Your task to perform on an android device: turn off notifications in google photos Image 0: 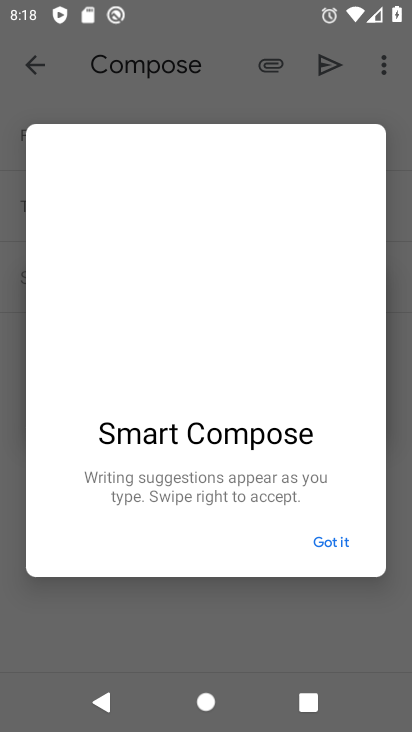
Step 0: press back button
Your task to perform on an android device: turn off notifications in google photos Image 1: 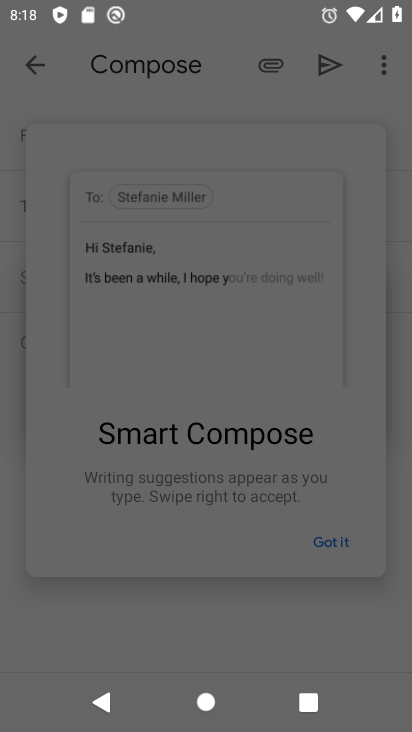
Step 1: press back button
Your task to perform on an android device: turn off notifications in google photos Image 2: 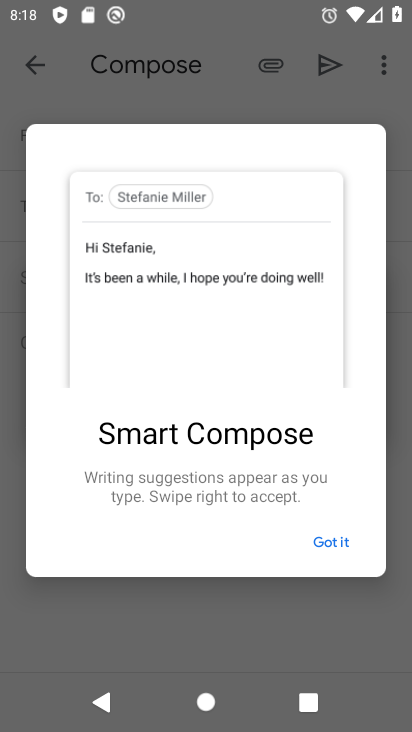
Step 2: press back button
Your task to perform on an android device: turn off notifications in google photos Image 3: 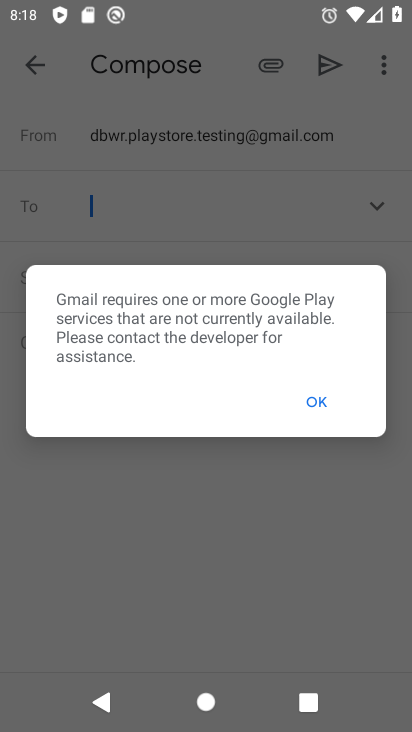
Step 3: press back button
Your task to perform on an android device: turn off notifications in google photos Image 4: 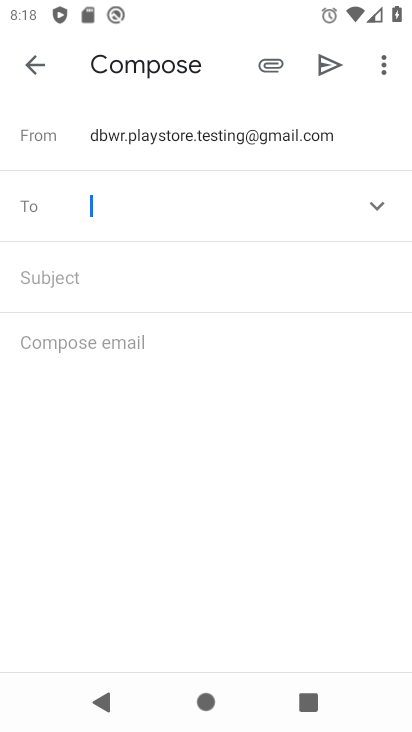
Step 4: press back button
Your task to perform on an android device: turn off notifications in google photos Image 5: 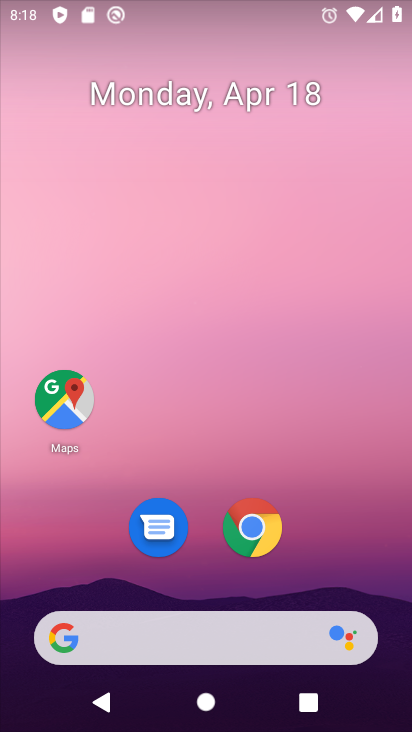
Step 5: drag from (155, 596) to (257, 145)
Your task to perform on an android device: turn off notifications in google photos Image 6: 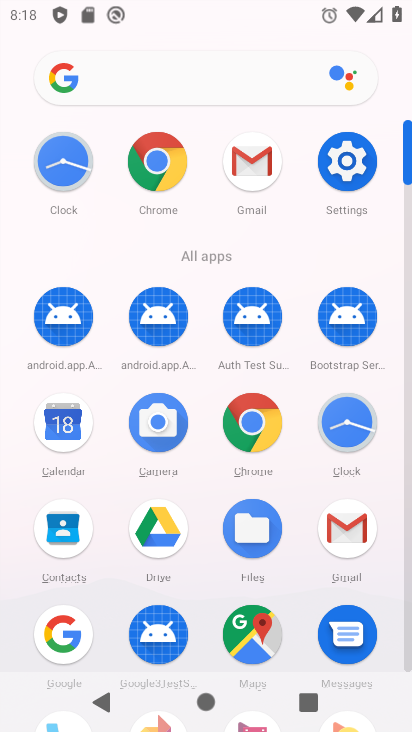
Step 6: drag from (384, 593) to (387, 470)
Your task to perform on an android device: turn off notifications in google photos Image 7: 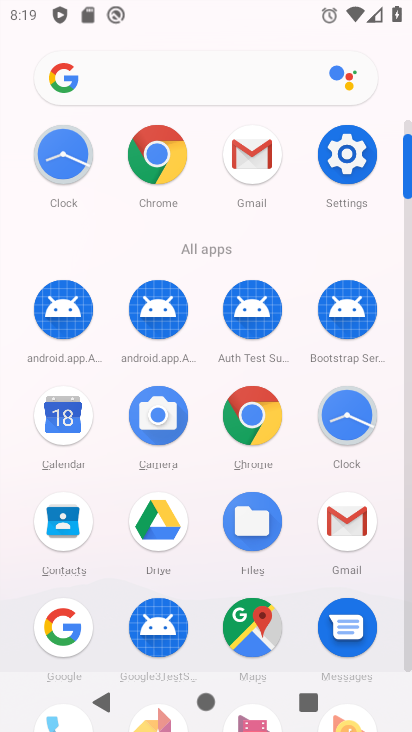
Step 7: drag from (249, 557) to (379, 102)
Your task to perform on an android device: turn off notifications in google photos Image 8: 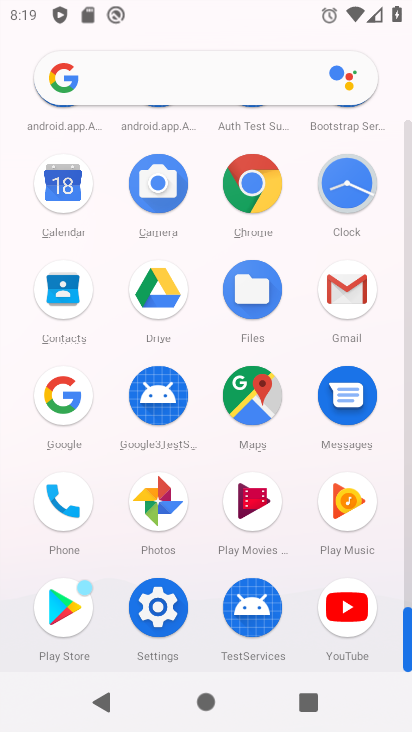
Step 8: click (155, 529)
Your task to perform on an android device: turn off notifications in google photos Image 9: 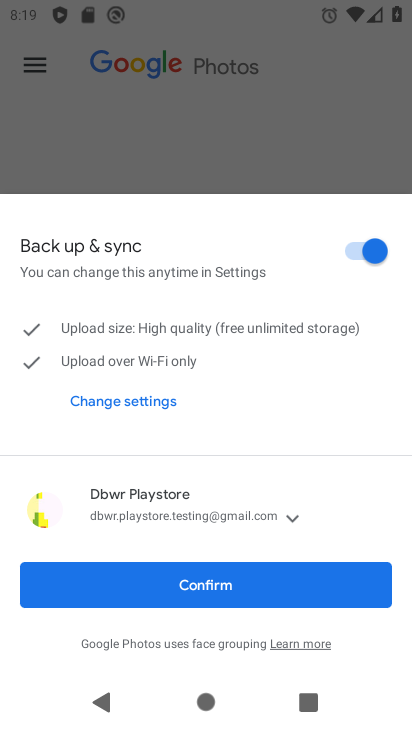
Step 9: click (217, 594)
Your task to perform on an android device: turn off notifications in google photos Image 10: 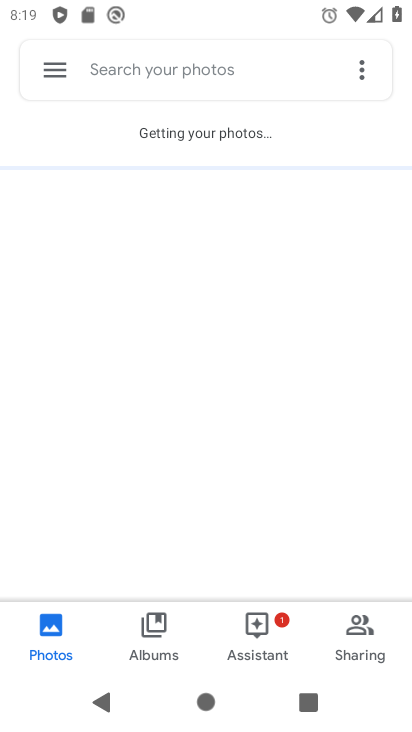
Step 10: click (58, 68)
Your task to perform on an android device: turn off notifications in google photos Image 11: 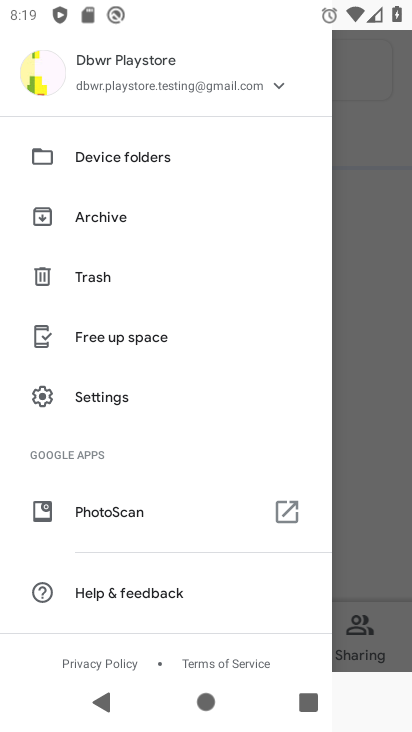
Step 11: click (152, 410)
Your task to perform on an android device: turn off notifications in google photos Image 12: 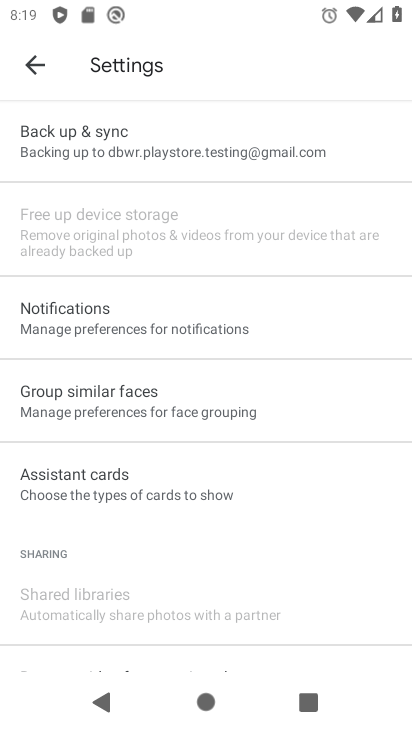
Step 12: click (164, 313)
Your task to perform on an android device: turn off notifications in google photos Image 13: 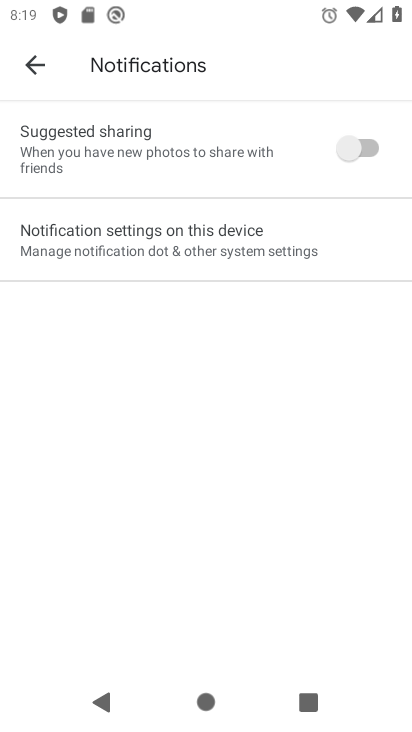
Step 13: click (302, 244)
Your task to perform on an android device: turn off notifications in google photos Image 14: 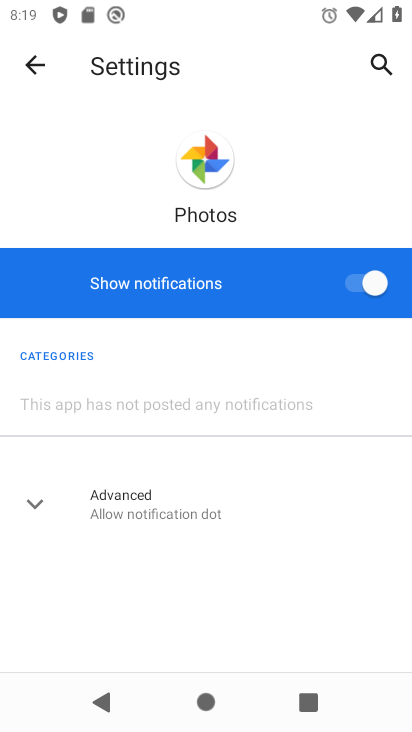
Step 14: click (348, 284)
Your task to perform on an android device: turn off notifications in google photos Image 15: 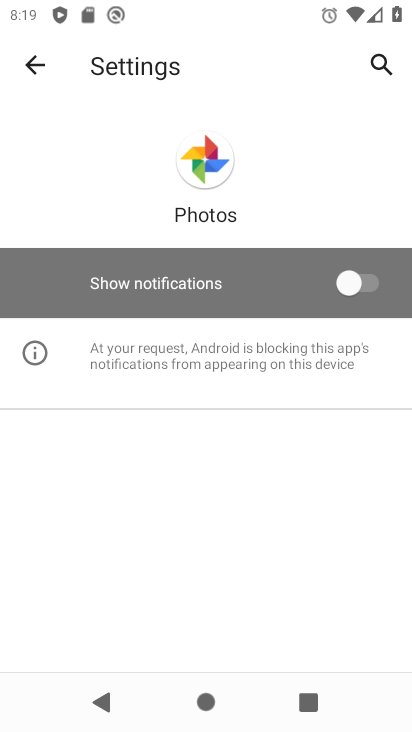
Step 15: task complete